Your task to perform on an android device: turn off location history Image 0: 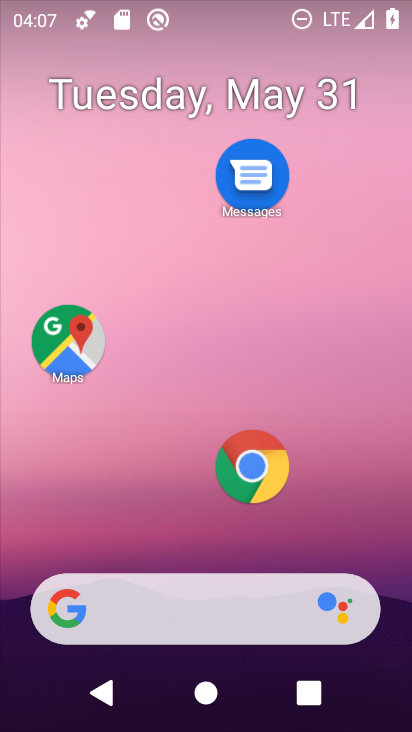
Step 0: drag from (132, 450) to (208, 53)
Your task to perform on an android device: turn off location history Image 1: 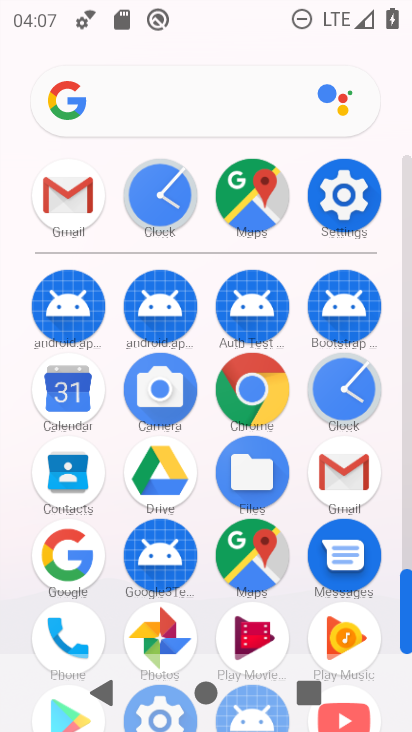
Step 1: click (329, 179)
Your task to perform on an android device: turn off location history Image 2: 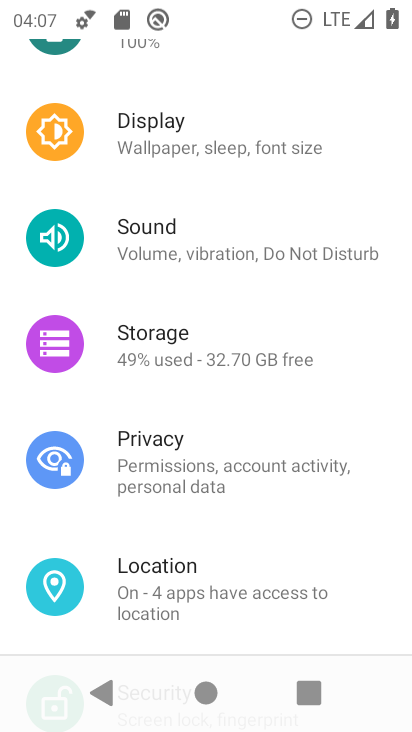
Step 2: click (199, 599)
Your task to perform on an android device: turn off location history Image 3: 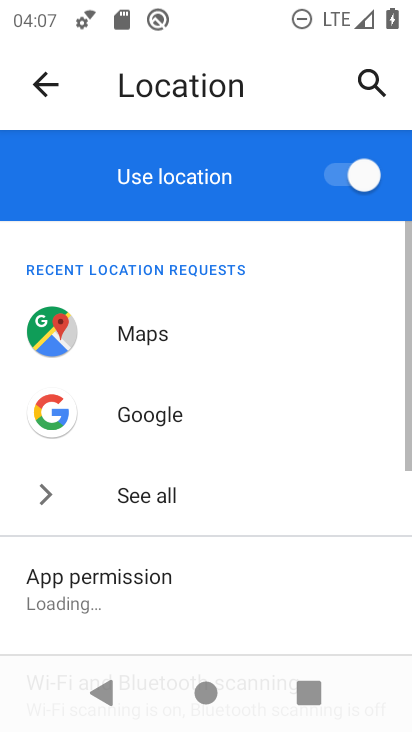
Step 3: drag from (183, 600) to (277, 73)
Your task to perform on an android device: turn off location history Image 4: 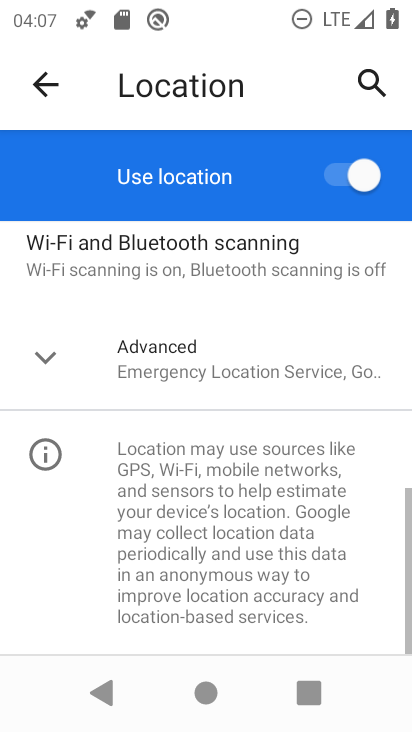
Step 4: click (204, 355)
Your task to perform on an android device: turn off location history Image 5: 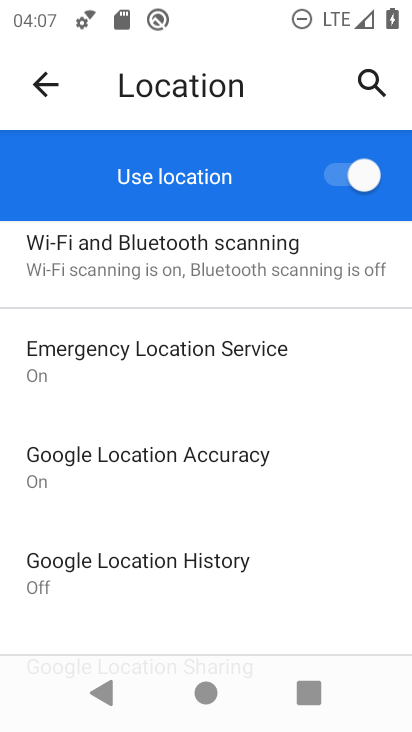
Step 5: click (149, 566)
Your task to perform on an android device: turn off location history Image 6: 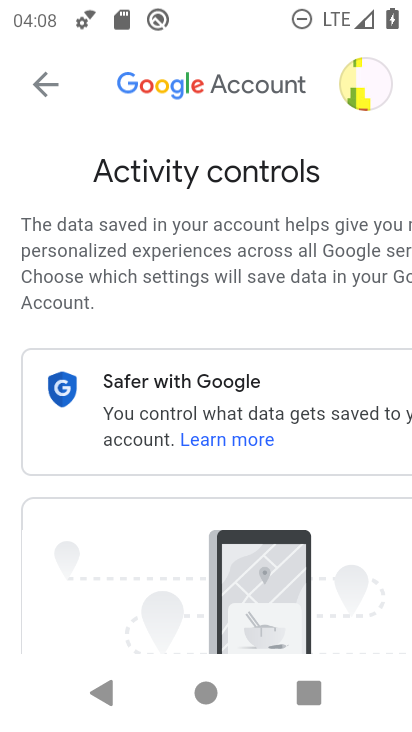
Step 6: task complete